Your task to perform on an android device: Play the last video I watched on Youtube Image 0: 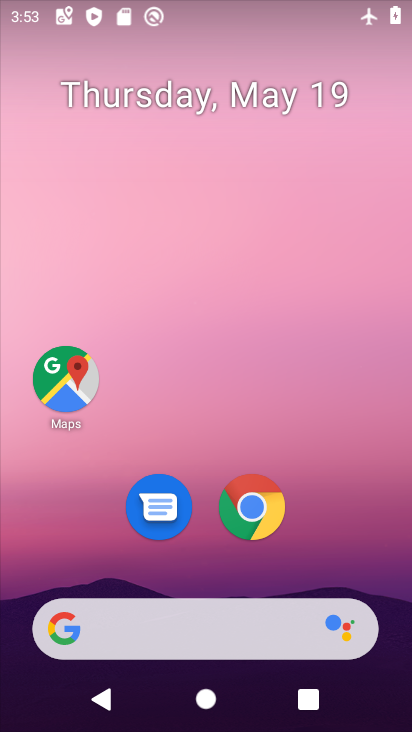
Step 0: drag from (392, 582) to (398, 230)
Your task to perform on an android device: Play the last video I watched on Youtube Image 1: 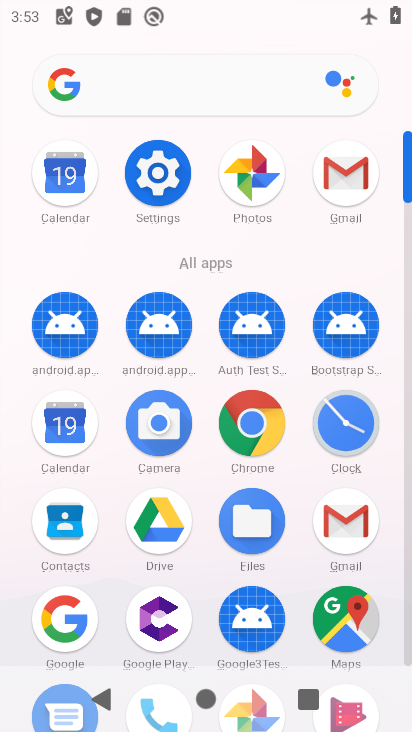
Step 1: drag from (294, 643) to (292, 339)
Your task to perform on an android device: Play the last video I watched on Youtube Image 2: 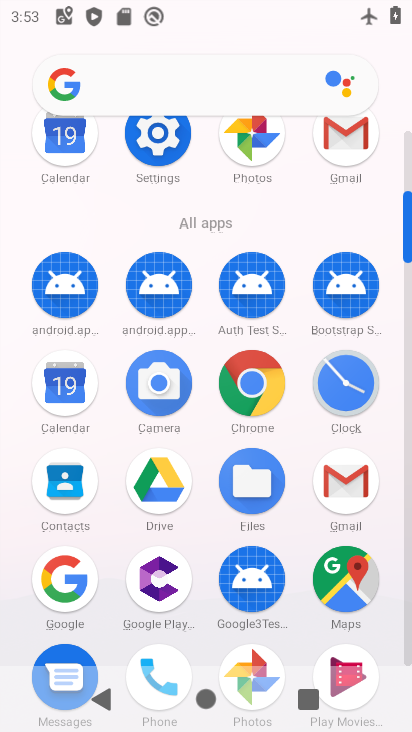
Step 2: drag from (297, 608) to (302, 320)
Your task to perform on an android device: Play the last video I watched on Youtube Image 3: 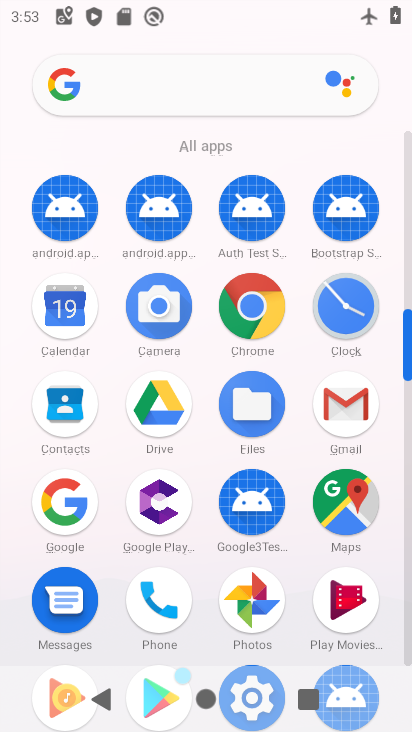
Step 3: drag from (303, 598) to (316, 345)
Your task to perform on an android device: Play the last video I watched on Youtube Image 4: 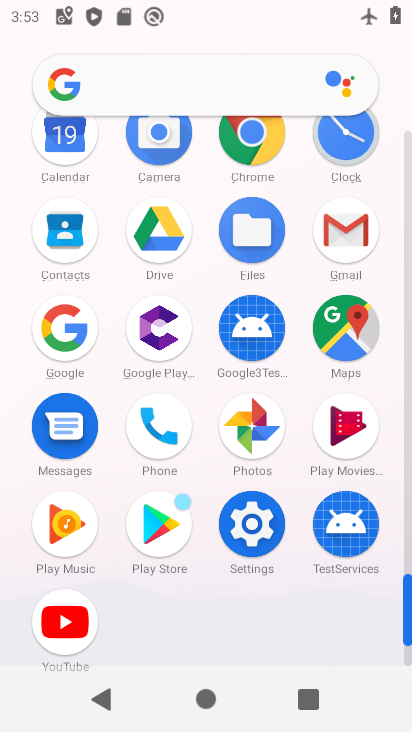
Step 4: click (60, 618)
Your task to perform on an android device: Play the last video I watched on Youtube Image 5: 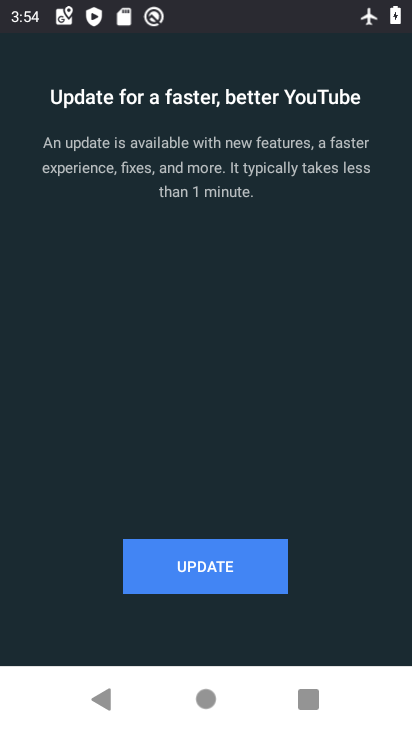
Step 5: drag from (219, 566) to (155, 566)
Your task to perform on an android device: Play the last video I watched on Youtube Image 6: 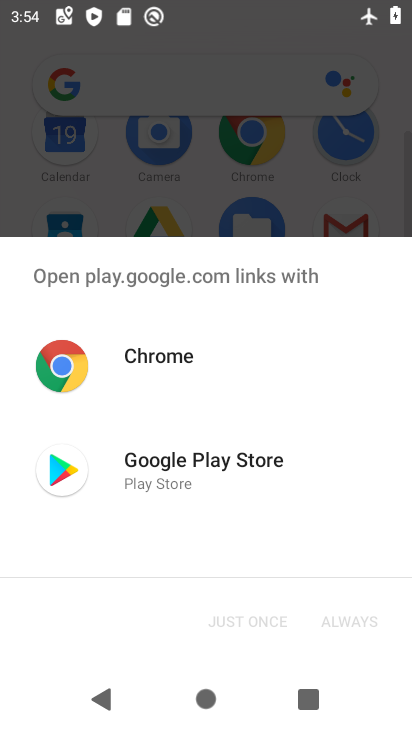
Step 6: click (141, 464)
Your task to perform on an android device: Play the last video I watched on Youtube Image 7: 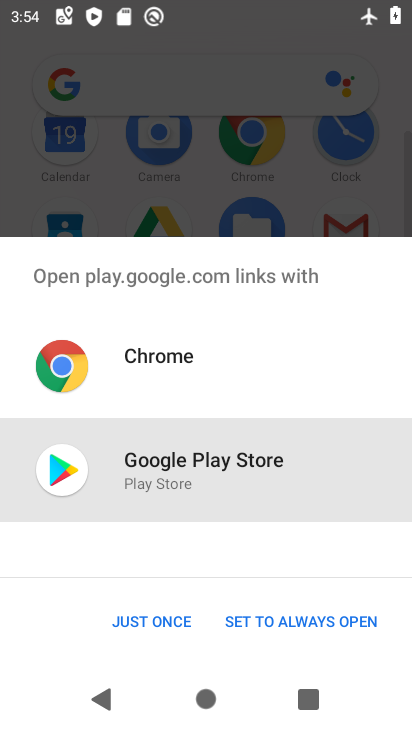
Step 7: click (148, 623)
Your task to perform on an android device: Play the last video I watched on Youtube Image 8: 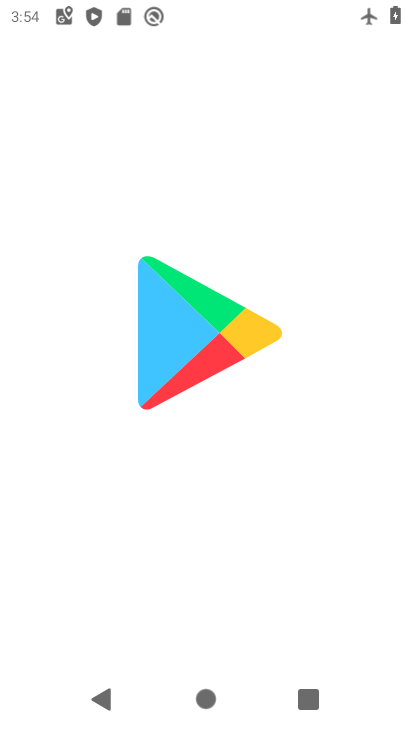
Step 8: task complete